Your task to perform on an android device: toggle wifi Image 0: 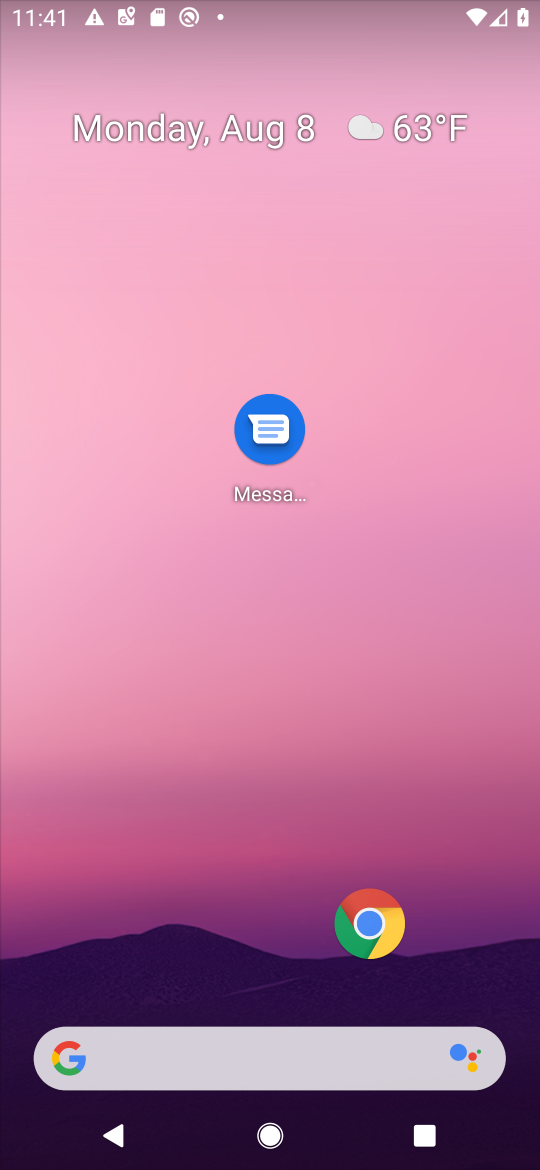
Step 0: drag from (49, 1101) to (224, 414)
Your task to perform on an android device: toggle wifi Image 1: 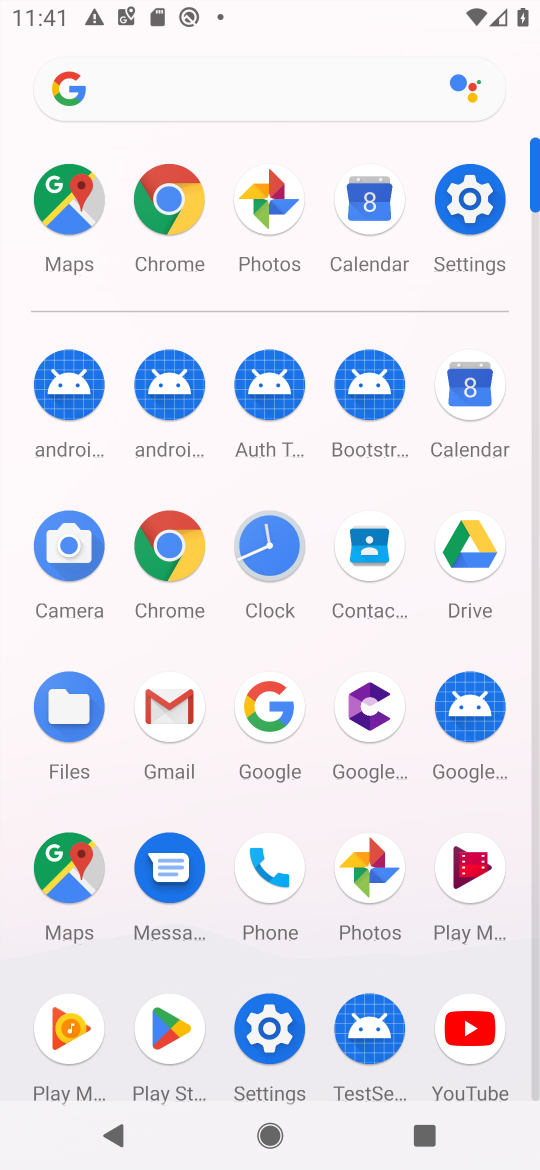
Step 1: click (490, 213)
Your task to perform on an android device: toggle wifi Image 2: 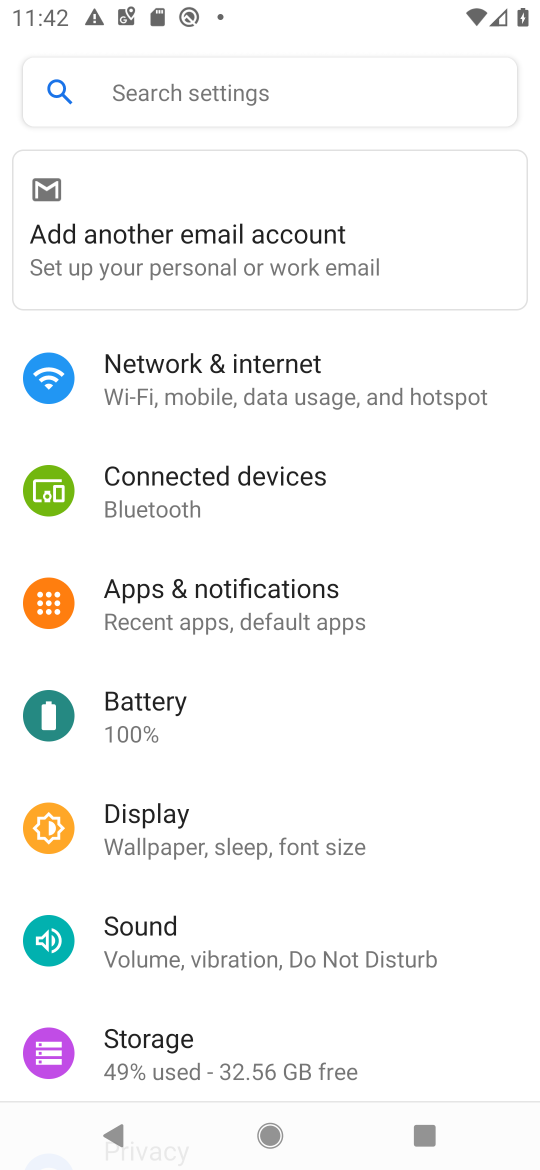
Step 2: click (273, 376)
Your task to perform on an android device: toggle wifi Image 3: 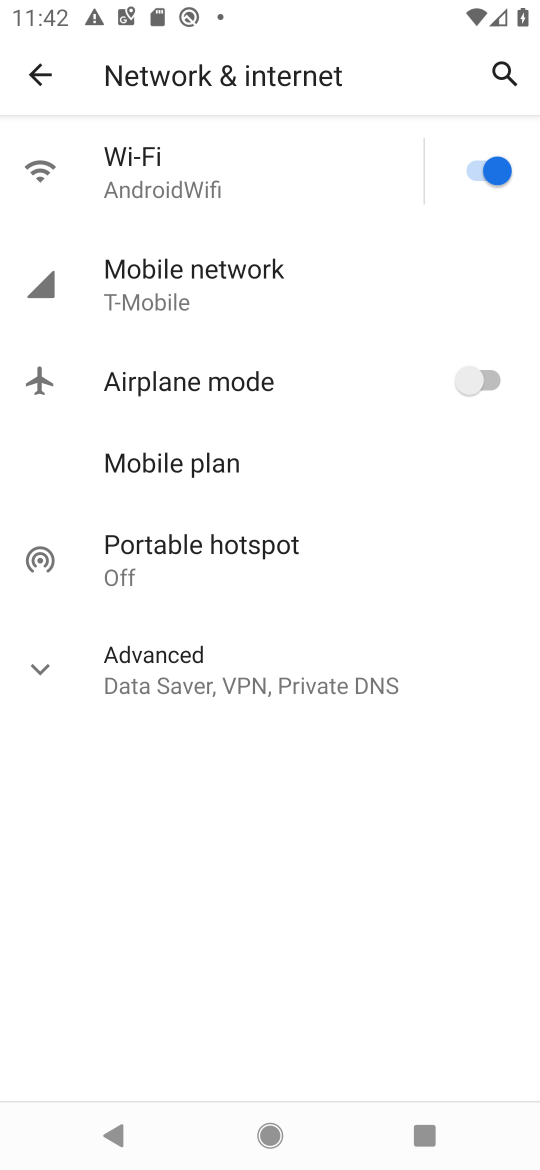
Step 3: task complete